Your task to perform on an android device: open app "Etsy: Buy & Sell Unique Items" Image 0: 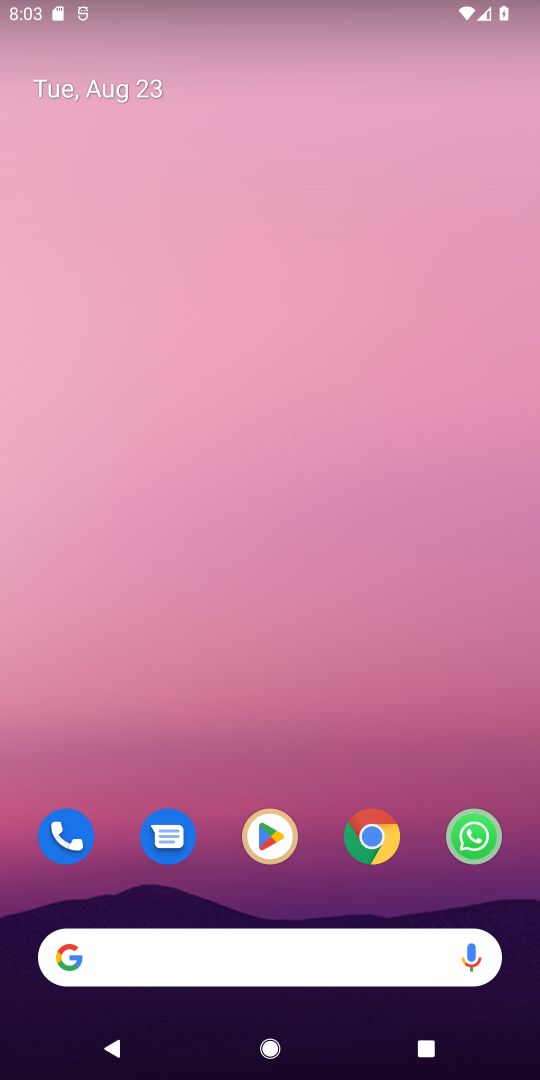
Step 0: click (268, 842)
Your task to perform on an android device: open app "Etsy: Buy & Sell Unique Items" Image 1: 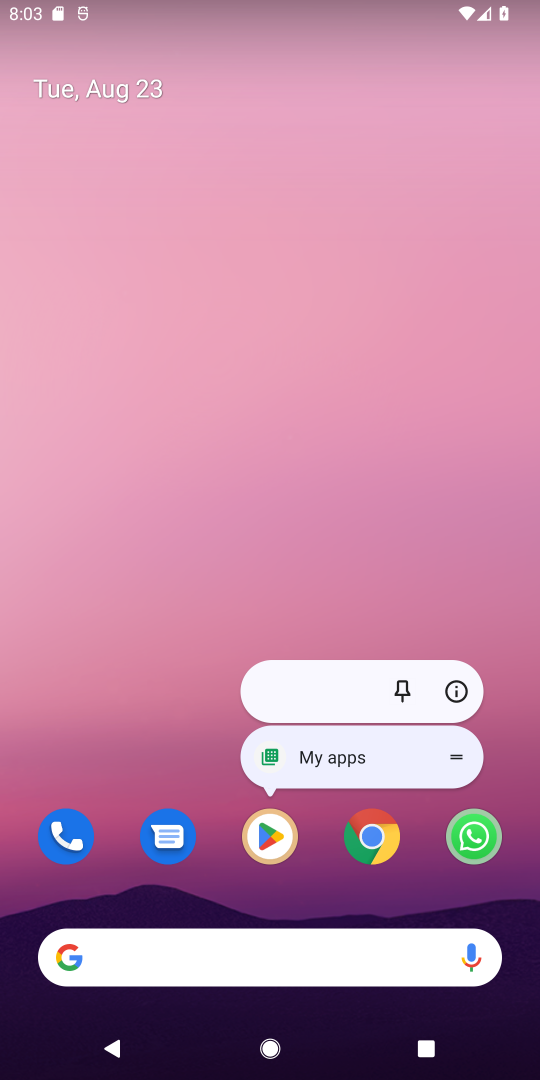
Step 1: click (268, 843)
Your task to perform on an android device: open app "Etsy: Buy & Sell Unique Items" Image 2: 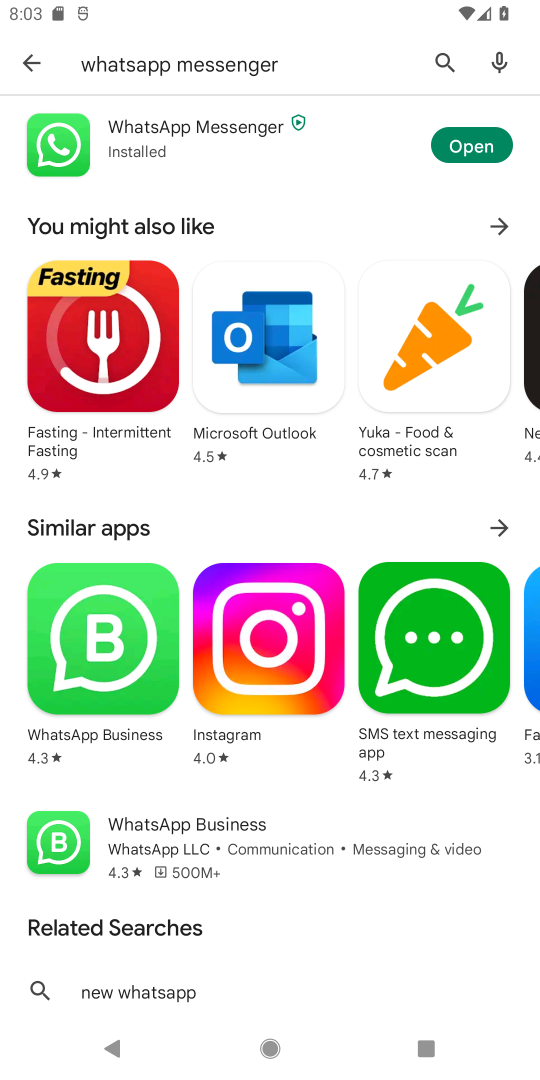
Step 2: click (440, 61)
Your task to perform on an android device: open app "Etsy: Buy & Sell Unique Items" Image 3: 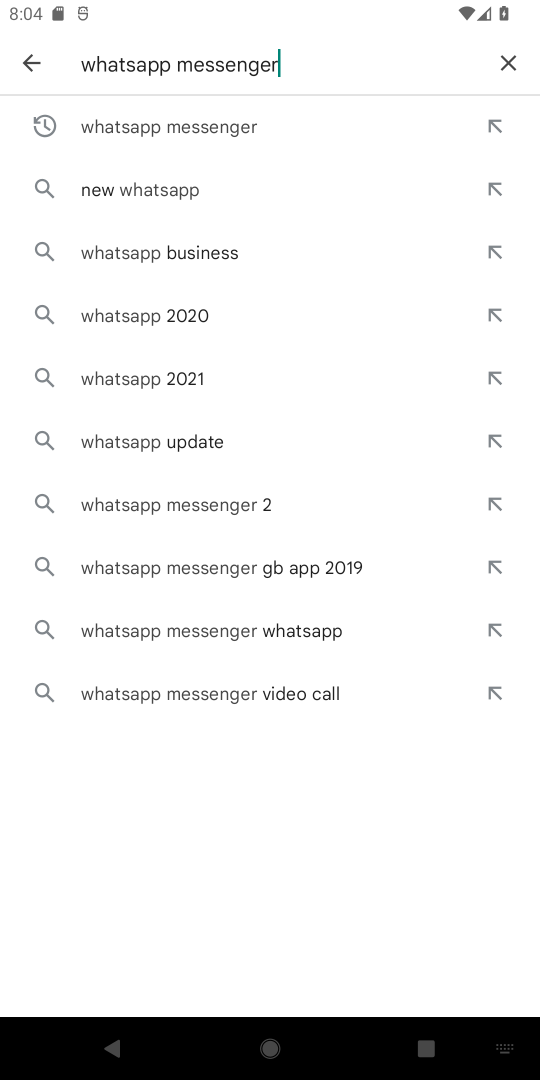
Step 3: click (516, 60)
Your task to perform on an android device: open app "Etsy: Buy & Sell Unique Items" Image 4: 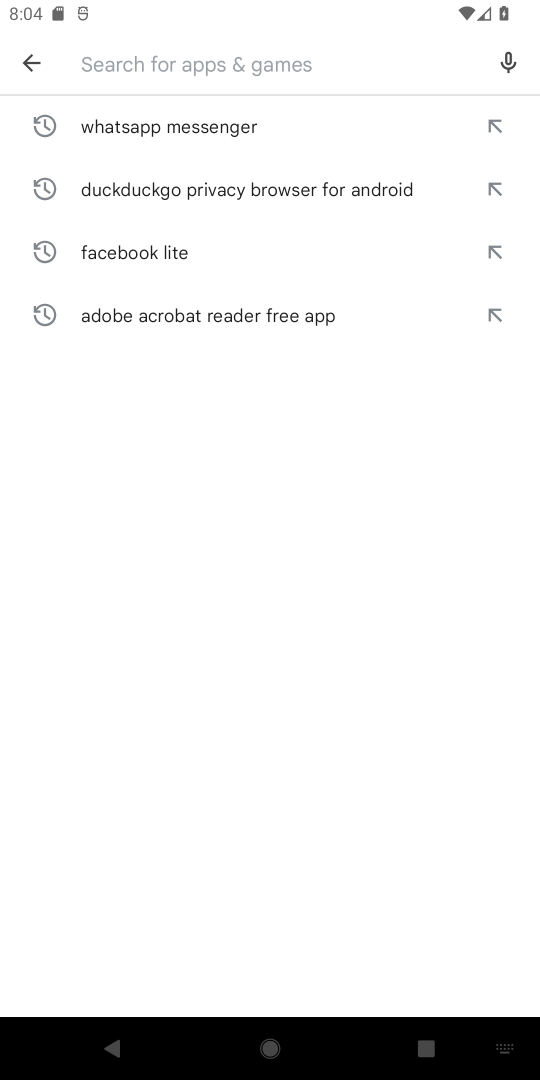
Step 4: type "Etsy: Buy & Sell Unique Items"
Your task to perform on an android device: open app "Etsy: Buy & Sell Unique Items" Image 5: 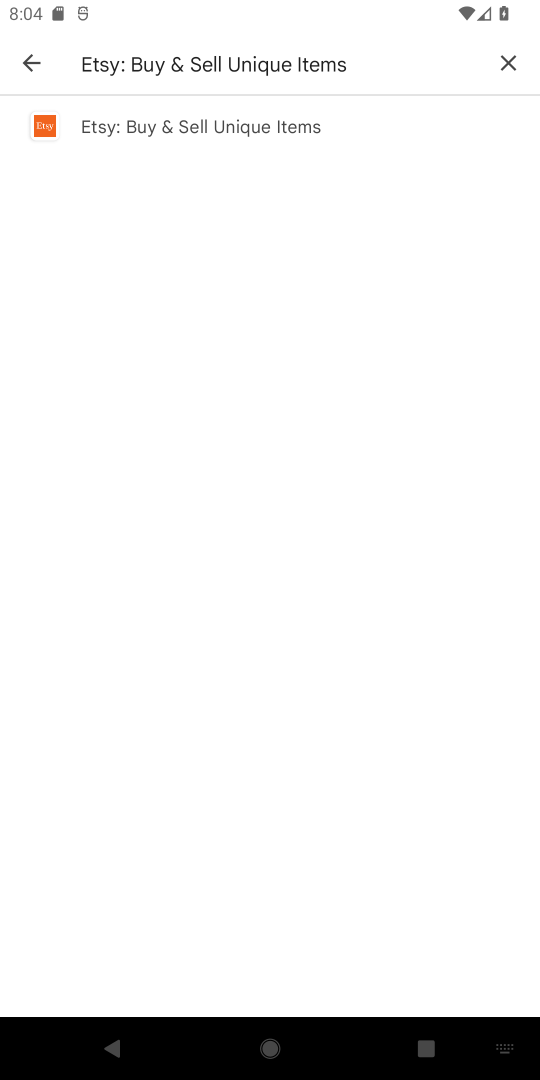
Step 5: click (234, 131)
Your task to perform on an android device: open app "Etsy: Buy & Sell Unique Items" Image 6: 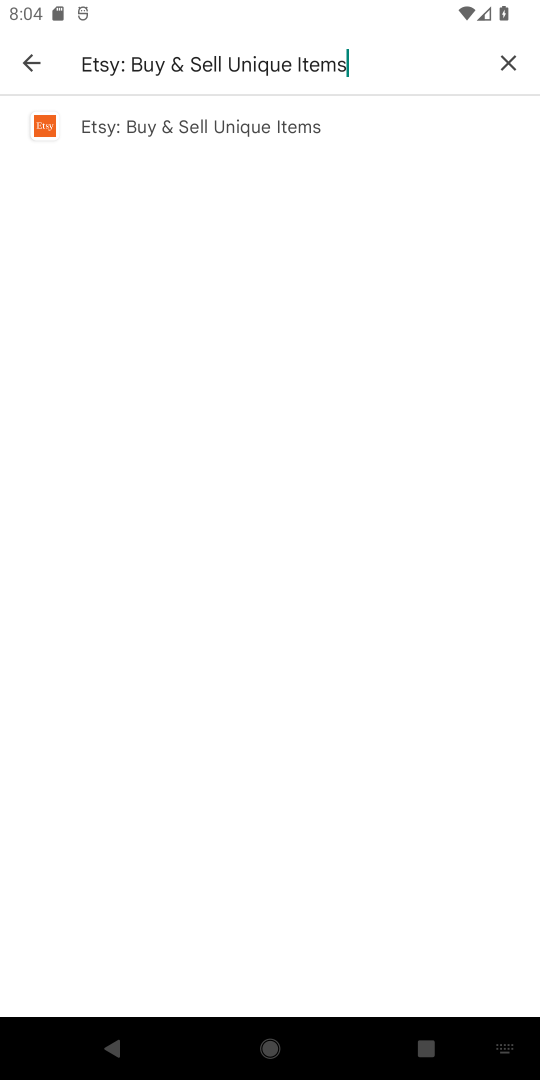
Step 6: click (253, 121)
Your task to perform on an android device: open app "Etsy: Buy & Sell Unique Items" Image 7: 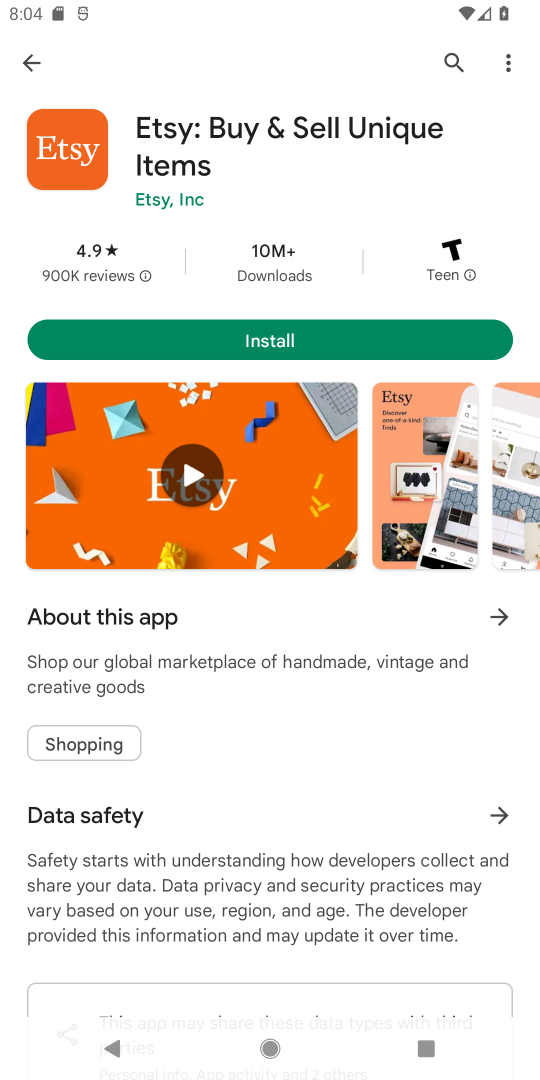
Step 7: task complete